Your task to perform on an android device: open a bookmark in the chrome app Image 0: 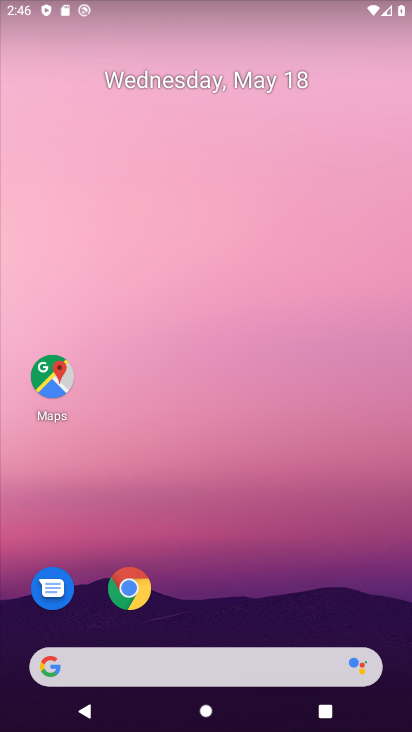
Step 0: drag from (355, 565) to (318, 196)
Your task to perform on an android device: open a bookmark in the chrome app Image 1: 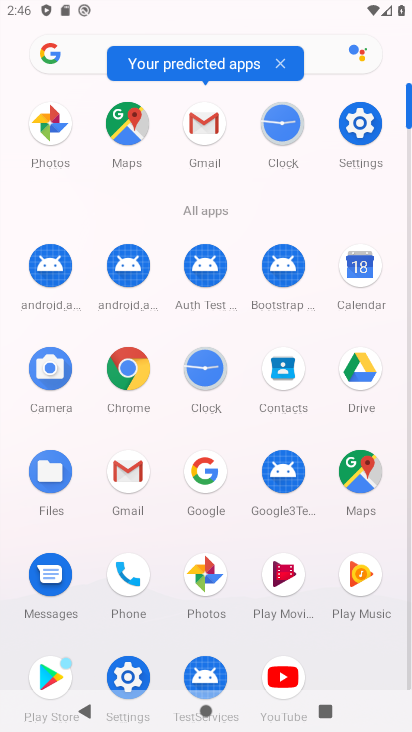
Step 1: click (144, 395)
Your task to perform on an android device: open a bookmark in the chrome app Image 2: 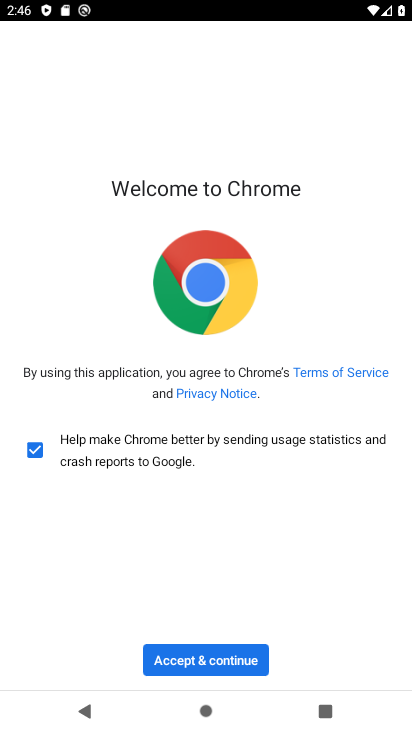
Step 2: click (181, 654)
Your task to perform on an android device: open a bookmark in the chrome app Image 3: 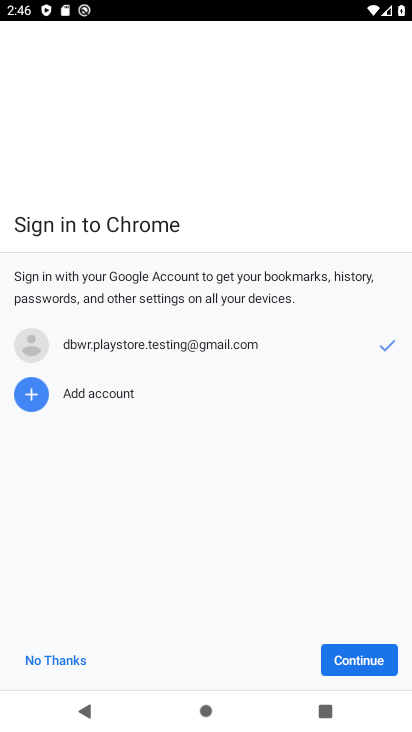
Step 3: click (370, 659)
Your task to perform on an android device: open a bookmark in the chrome app Image 4: 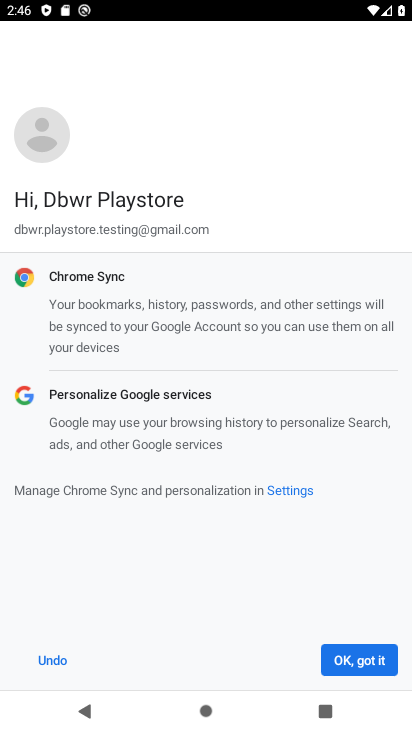
Step 4: click (369, 660)
Your task to perform on an android device: open a bookmark in the chrome app Image 5: 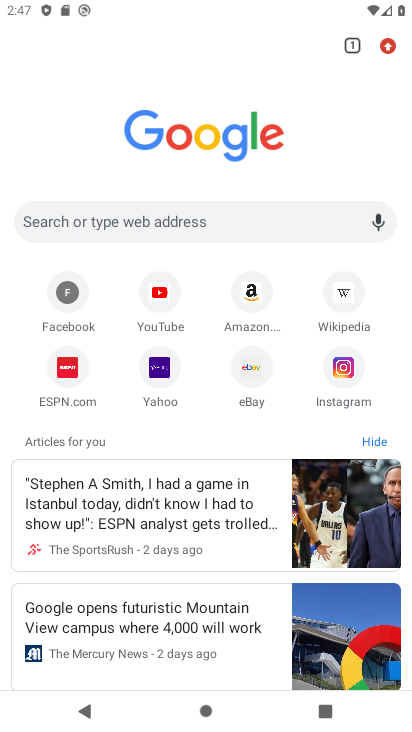
Step 5: task complete